Your task to perform on an android device: turn off notifications in google photos Image 0: 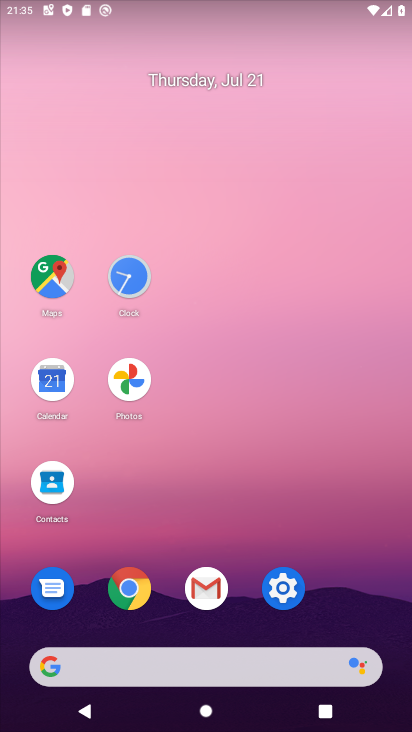
Step 0: click (125, 381)
Your task to perform on an android device: turn off notifications in google photos Image 1: 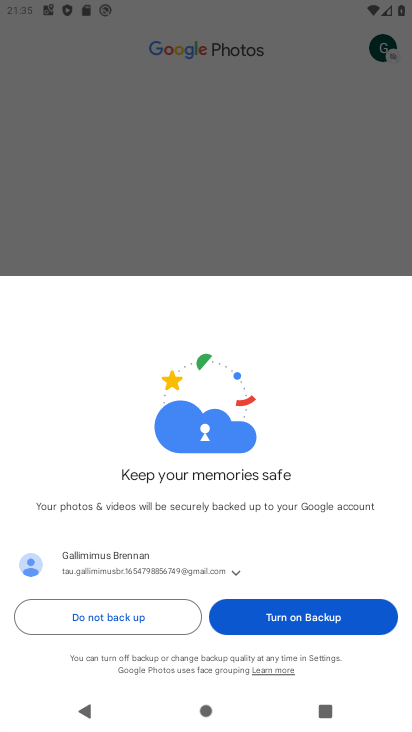
Step 1: click (287, 620)
Your task to perform on an android device: turn off notifications in google photos Image 2: 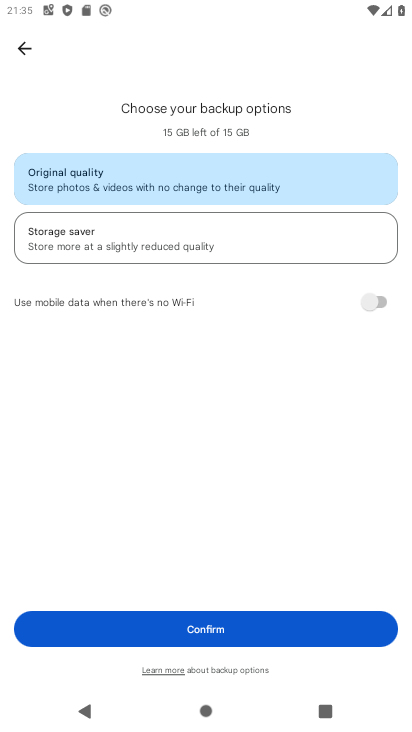
Step 2: click (227, 628)
Your task to perform on an android device: turn off notifications in google photos Image 3: 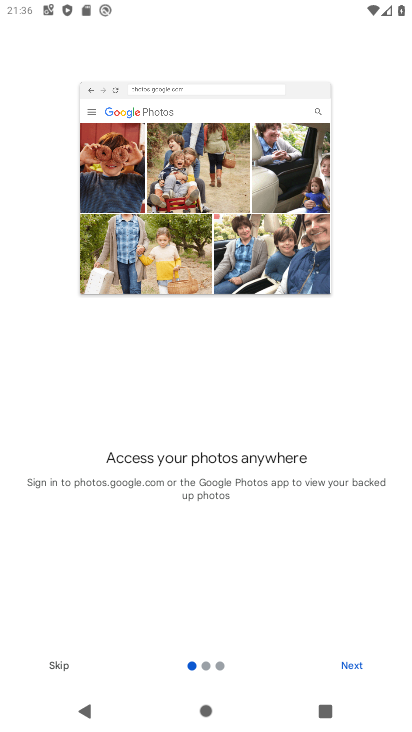
Step 3: click (351, 662)
Your task to perform on an android device: turn off notifications in google photos Image 4: 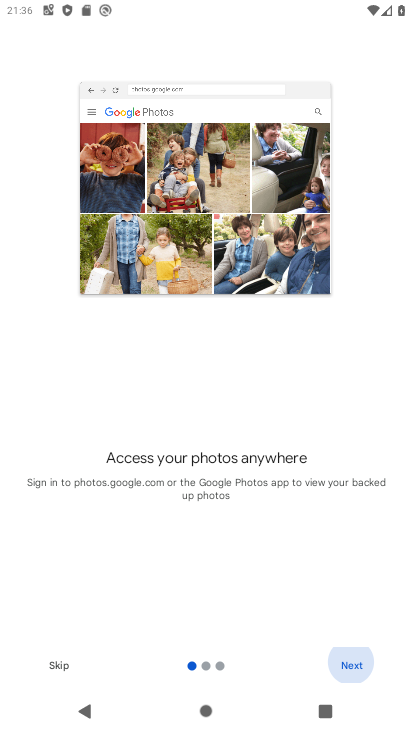
Step 4: click (351, 662)
Your task to perform on an android device: turn off notifications in google photos Image 5: 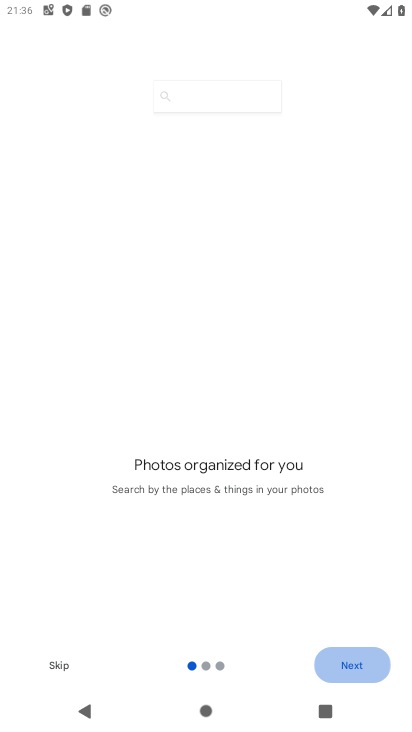
Step 5: click (351, 662)
Your task to perform on an android device: turn off notifications in google photos Image 6: 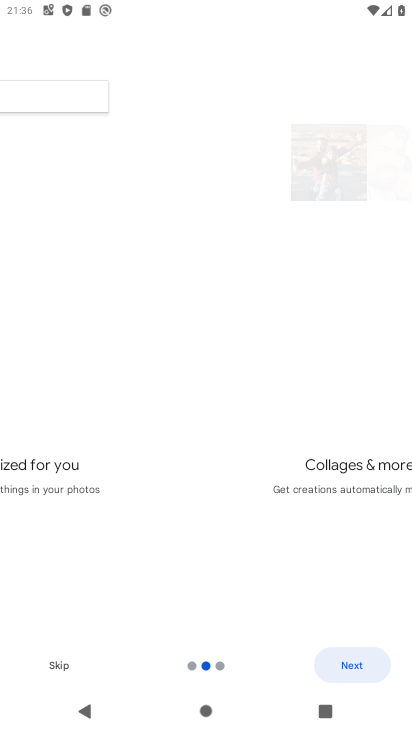
Step 6: click (351, 662)
Your task to perform on an android device: turn off notifications in google photos Image 7: 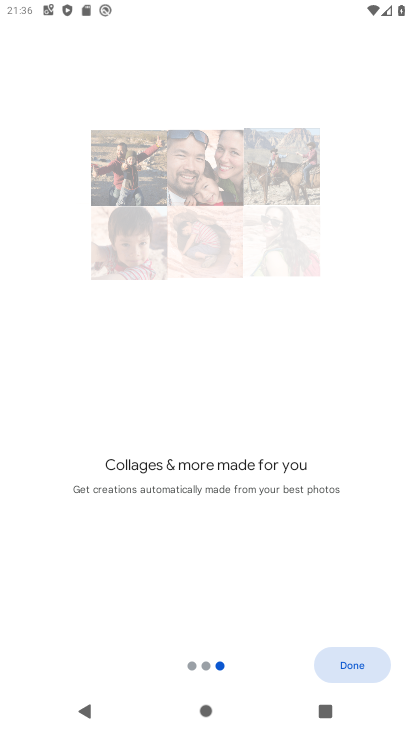
Step 7: click (351, 662)
Your task to perform on an android device: turn off notifications in google photos Image 8: 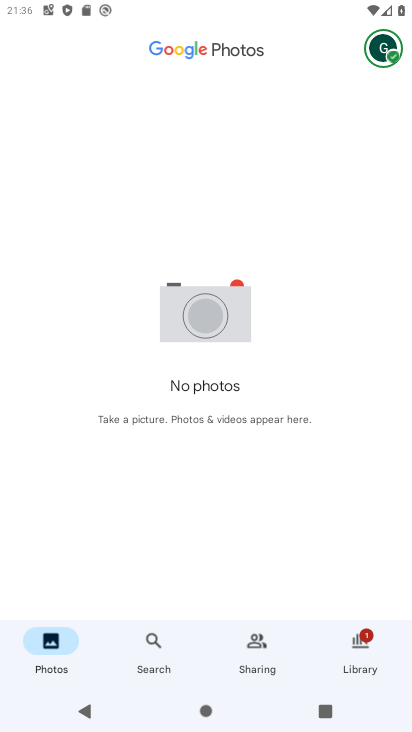
Step 8: click (381, 53)
Your task to perform on an android device: turn off notifications in google photos Image 9: 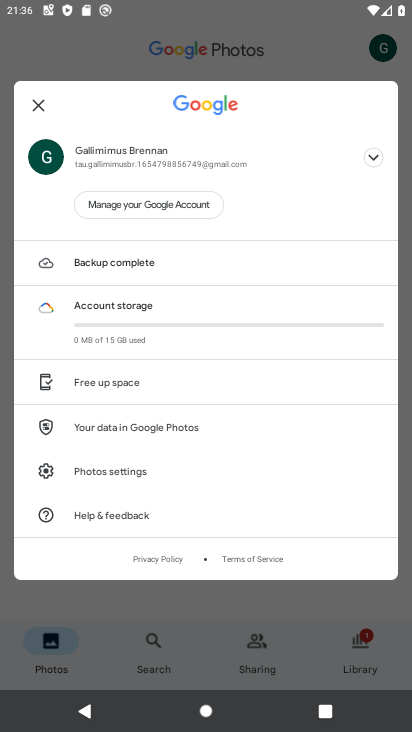
Step 9: click (118, 469)
Your task to perform on an android device: turn off notifications in google photos Image 10: 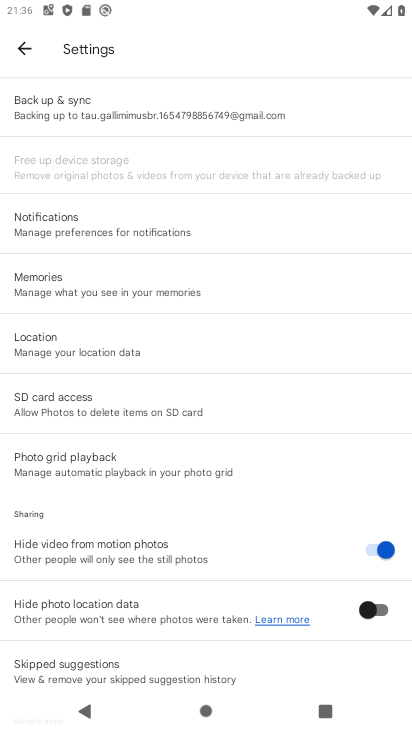
Step 10: click (60, 218)
Your task to perform on an android device: turn off notifications in google photos Image 11: 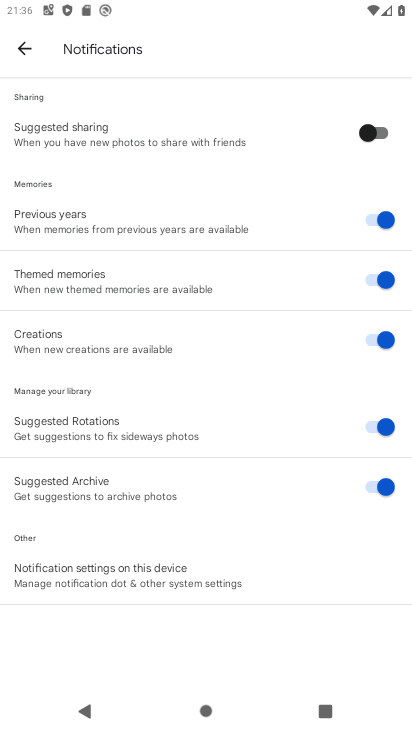
Step 11: click (105, 568)
Your task to perform on an android device: turn off notifications in google photos Image 12: 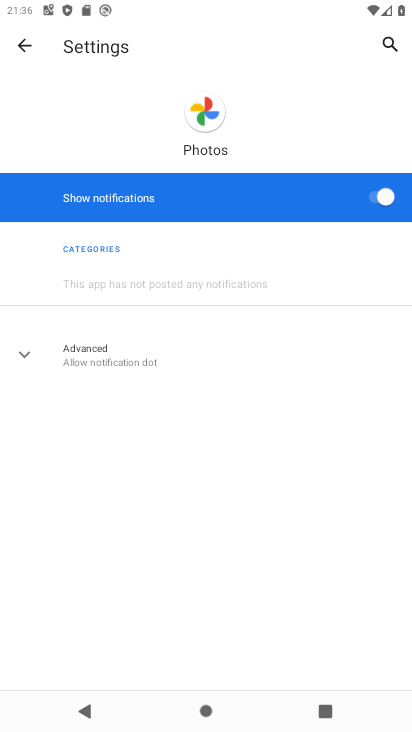
Step 12: click (382, 195)
Your task to perform on an android device: turn off notifications in google photos Image 13: 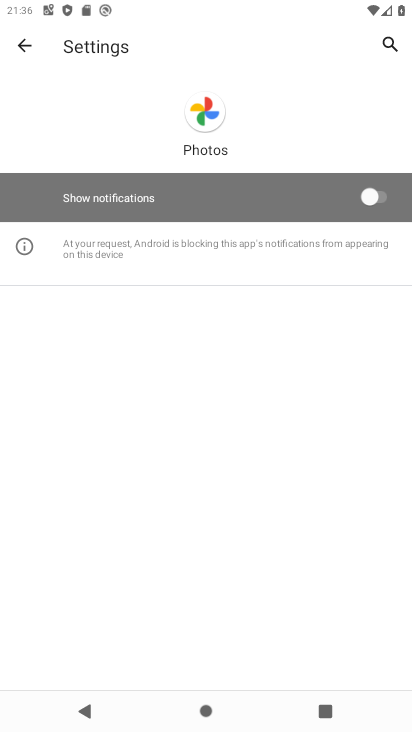
Step 13: task complete